Your task to perform on an android device: change keyboard looks Image 0: 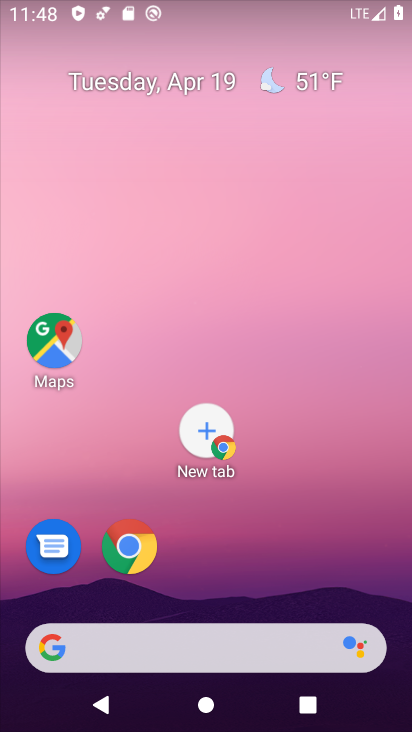
Step 0: drag from (256, 4) to (246, 678)
Your task to perform on an android device: change keyboard looks Image 1: 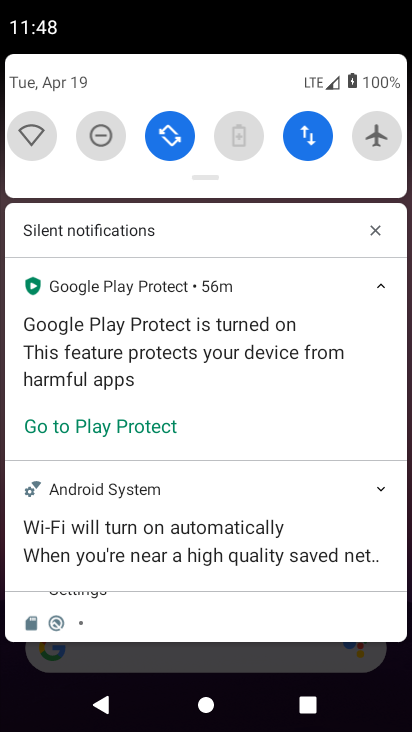
Step 1: drag from (183, 64) to (280, 516)
Your task to perform on an android device: change keyboard looks Image 2: 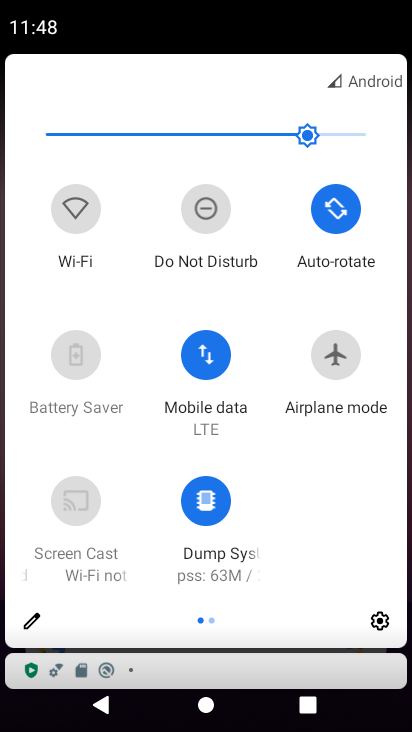
Step 2: click (382, 621)
Your task to perform on an android device: change keyboard looks Image 3: 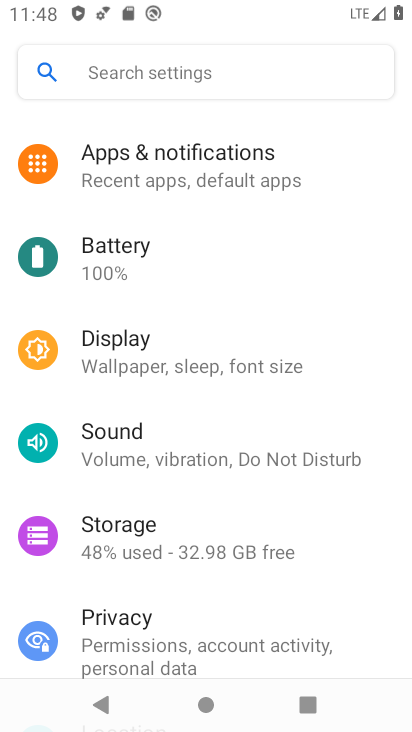
Step 3: drag from (129, 590) to (151, 18)
Your task to perform on an android device: change keyboard looks Image 4: 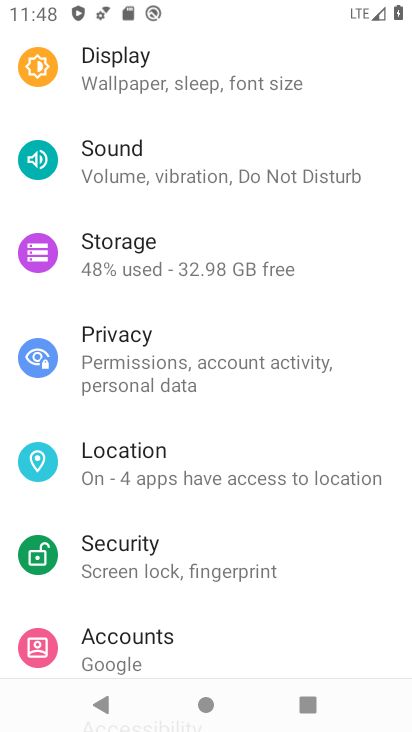
Step 4: drag from (203, 562) to (203, 16)
Your task to perform on an android device: change keyboard looks Image 5: 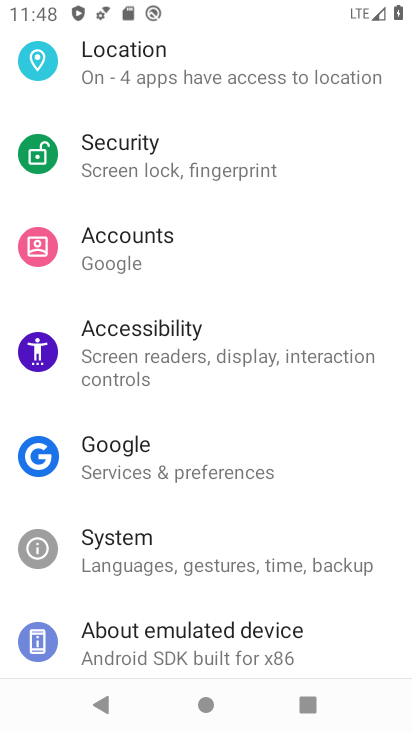
Step 5: click (136, 574)
Your task to perform on an android device: change keyboard looks Image 6: 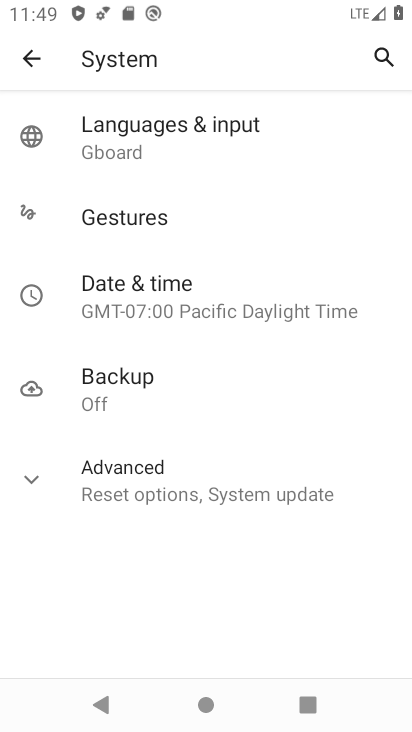
Step 6: click (148, 135)
Your task to perform on an android device: change keyboard looks Image 7: 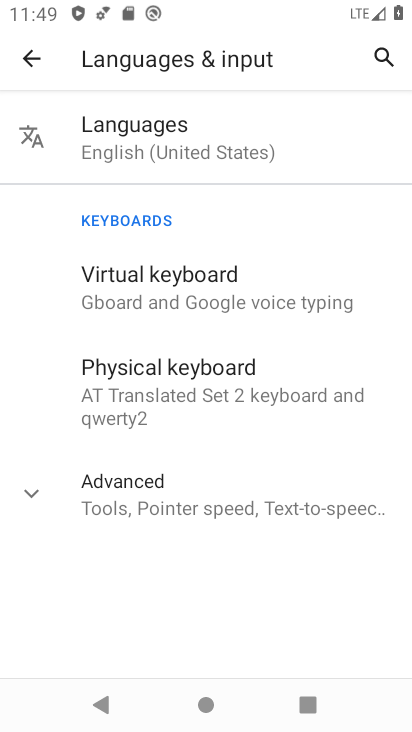
Step 7: click (167, 145)
Your task to perform on an android device: change keyboard looks Image 8: 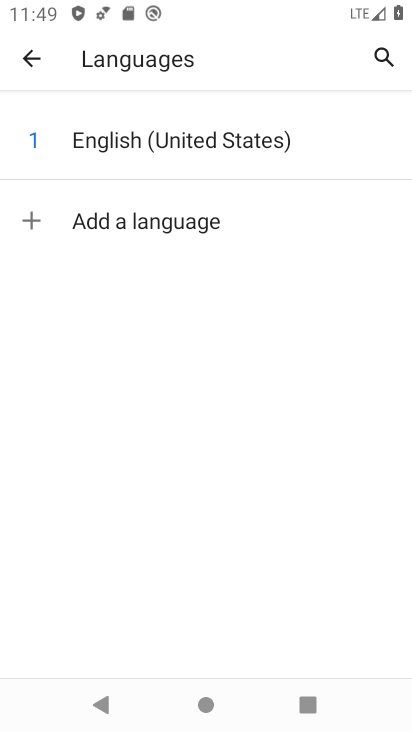
Step 8: click (27, 58)
Your task to perform on an android device: change keyboard looks Image 9: 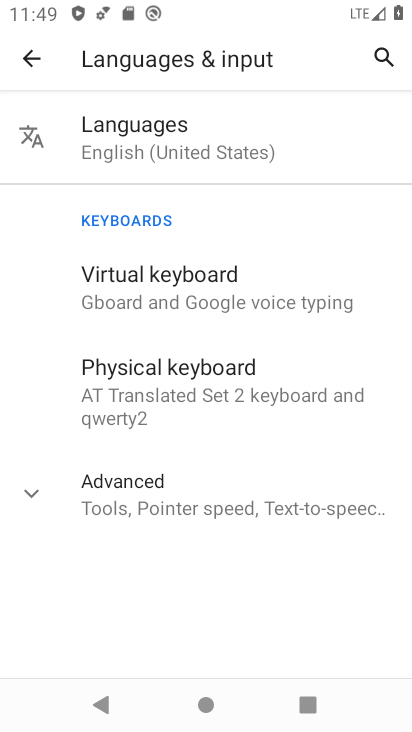
Step 9: click (193, 301)
Your task to perform on an android device: change keyboard looks Image 10: 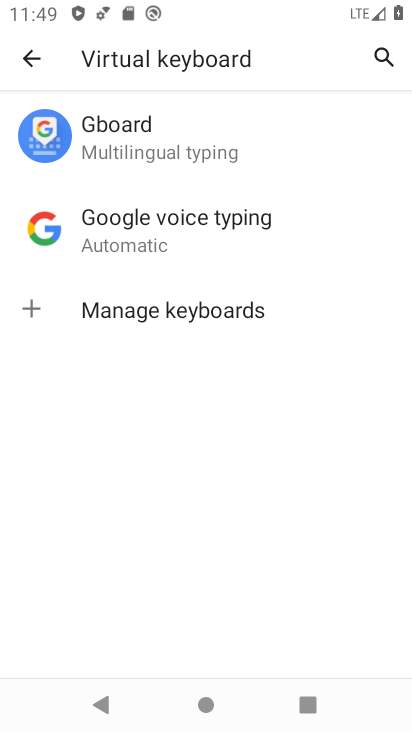
Step 10: click (149, 160)
Your task to perform on an android device: change keyboard looks Image 11: 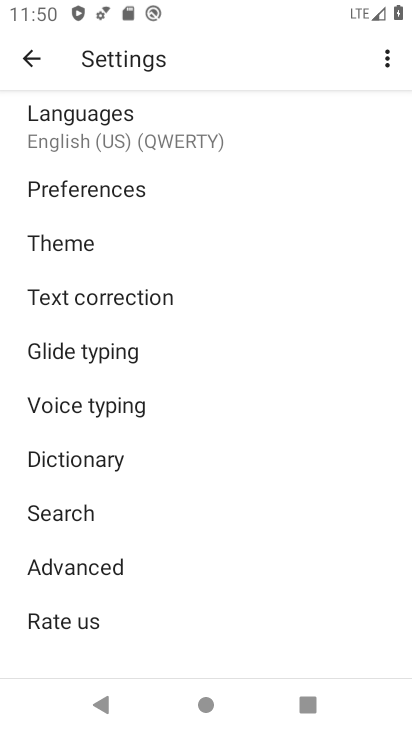
Step 11: click (165, 241)
Your task to perform on an android device: change keyboard looks Image 12: 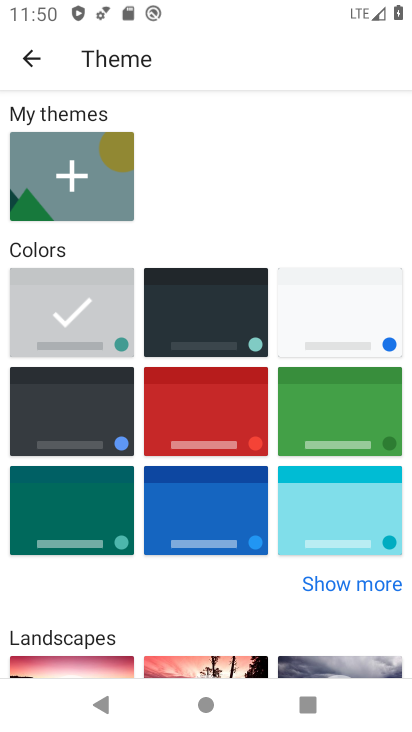
Step 12: click (210, 404)
Your task to perform on an android device: change keyboard looks Image 13: 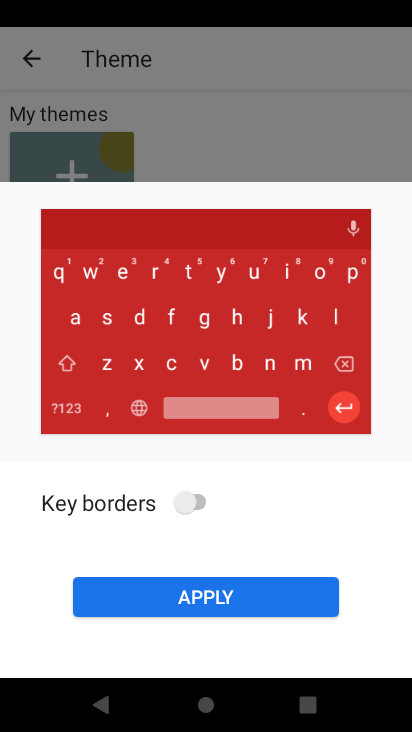
Step 13: click (201, 497)
Your task to perform on an android device: change keyboard looks Image 14: 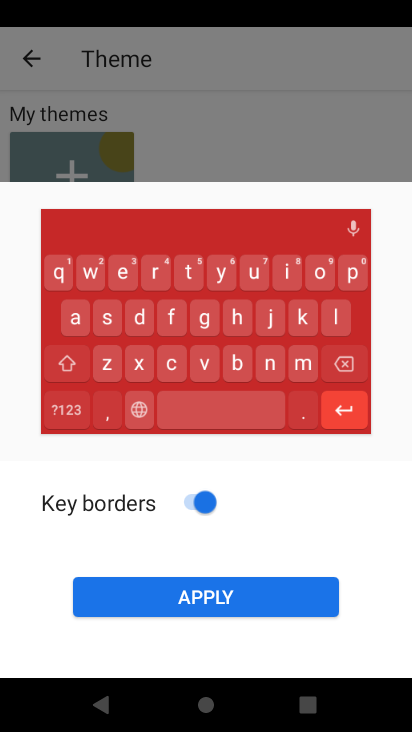
Step 14: click (219, 591)
Your task to perform on an android device: change keyboard looks Image 15: 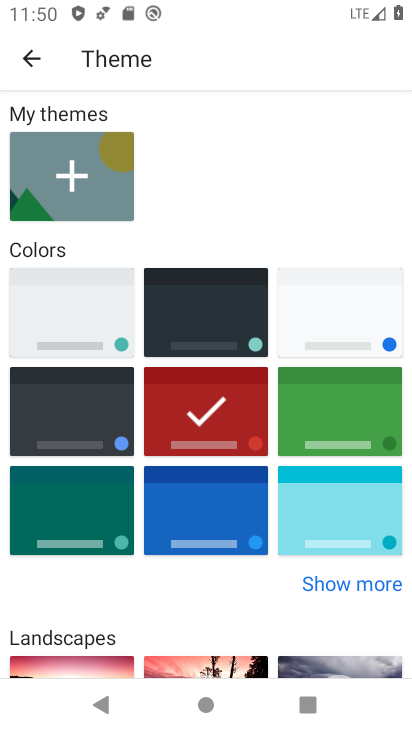
Step 15: task complete